Your task to perform on an android device: all mails in gmail Image 0: 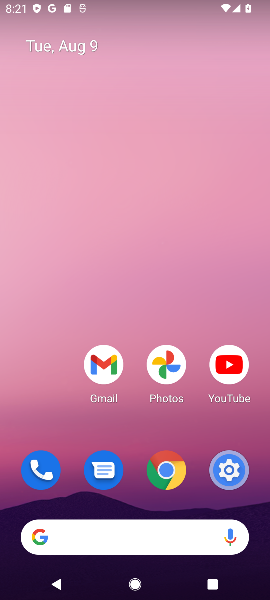
Step 0: click (102, 376)
Your task to perform on an android device: all mails in gmail Image 1: 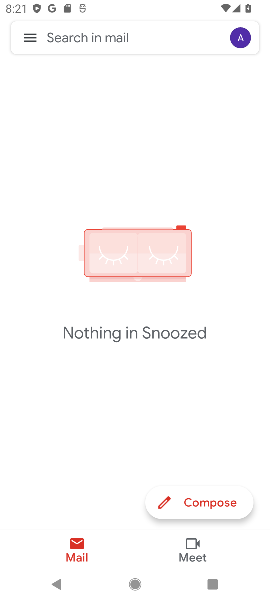
Step 1: click (25, 39)
Your task to perform on an android device: all mails in gmail Image 2: 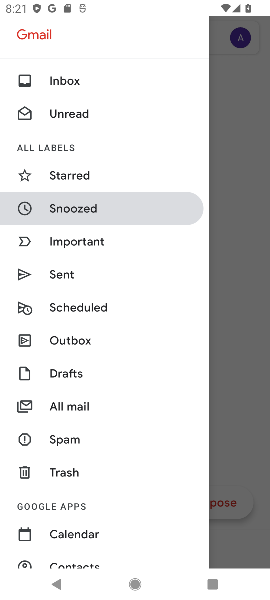
Step 2: click (75, 405)
Your task to perform on an android device: all mails in gmail Image 3: 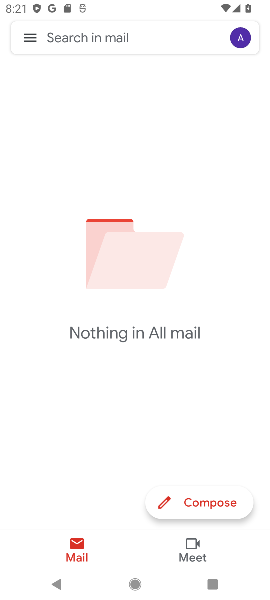
Step 3: task complete